Your task to perform on an android device: Open Google Chrome Image 0: 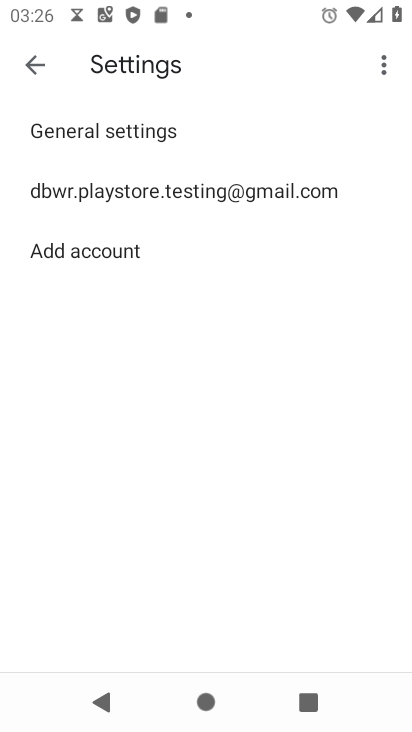
Step 0: press back button
Your task to perform on an android device: Open Google Chrome Image 1: 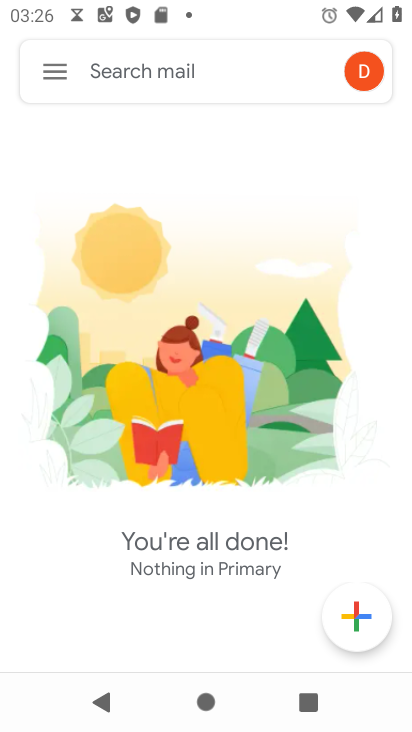
Step 1: press back button
Your task to perform on an android device: Open Google Chrome Image 2: 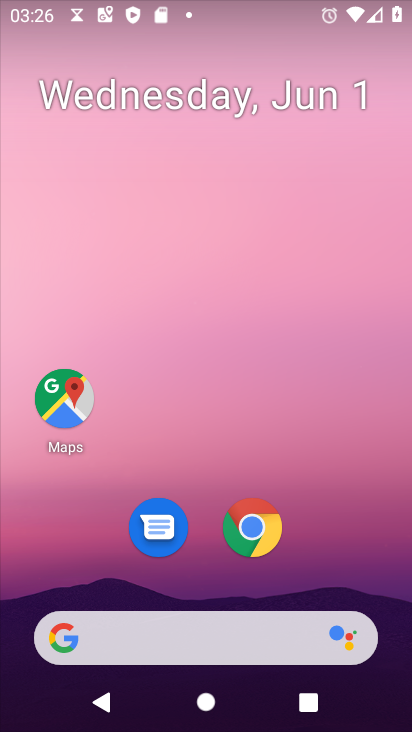
Step 2: click (251, 527)
Your task to perform on an android device: Open Google Chrome Image 3: 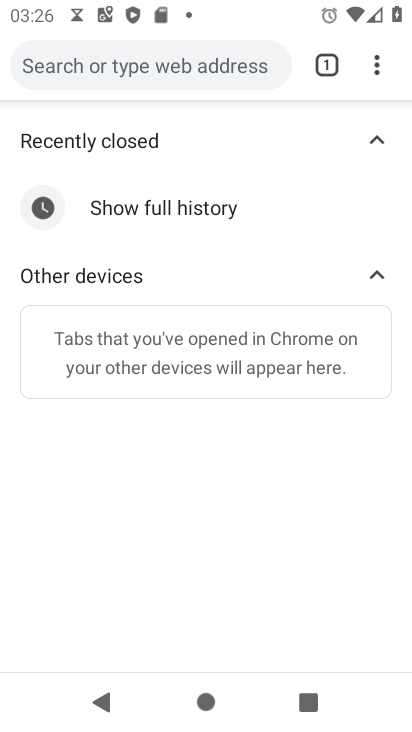
Step 3: task complete